Your task to perform on an android device: delete the emails in spam in the gmail app Image 0: 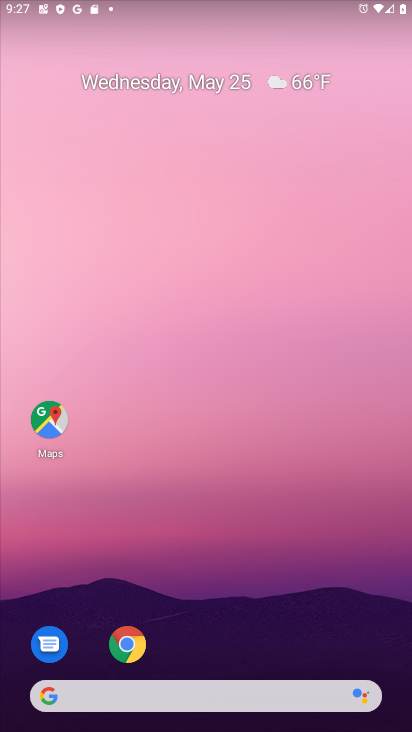
Step 0: press home button
Your task to perform on an android device: delete the emails in spam in the gmail app Image 1: 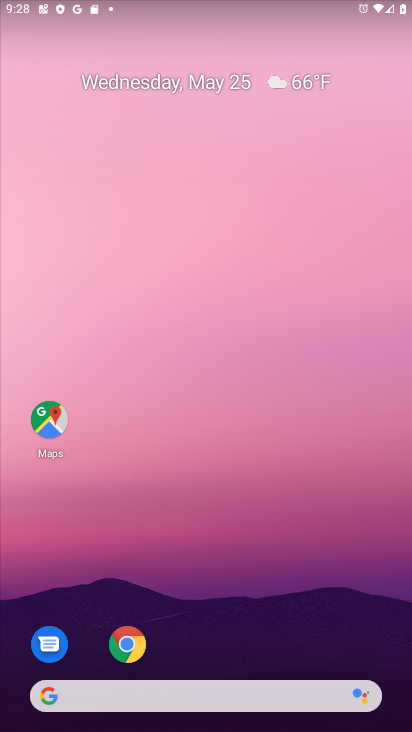
Step 1: drag from (226, 666) to (220, 178)
Your task to perform on an android device: delete the emails in spam in the gmail app Image 2: 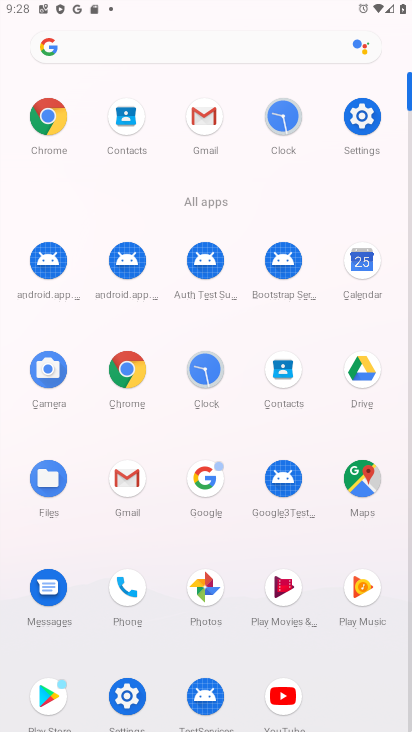
Step 2: click (125, 470)
Your task to perform on an android device: delete the emails in spam in the gmail app Image 3: 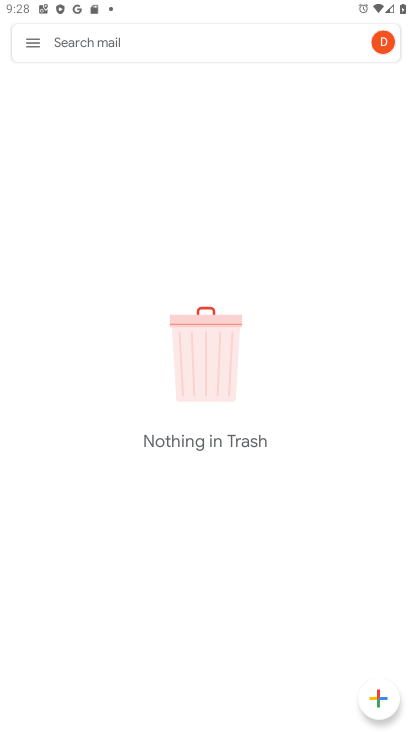
Step 3: click (31, 39)
Your task to perform on an android device: delete the emails in spam in the gmail app Image 4: 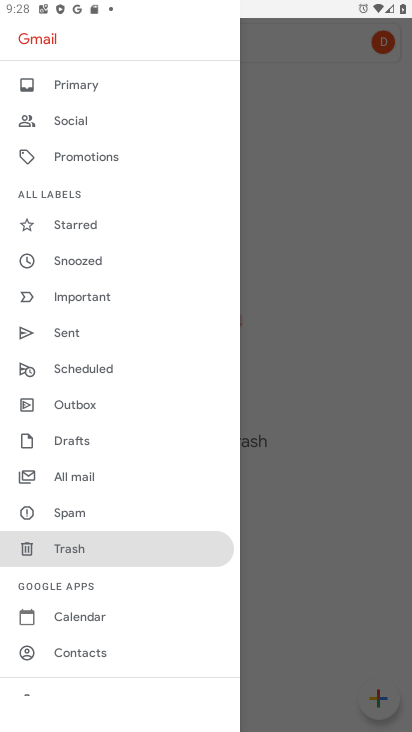
Step 4: click (100, 474)
Your task to perform on an android device: delete the emails in spam in the gmail app Image 5: 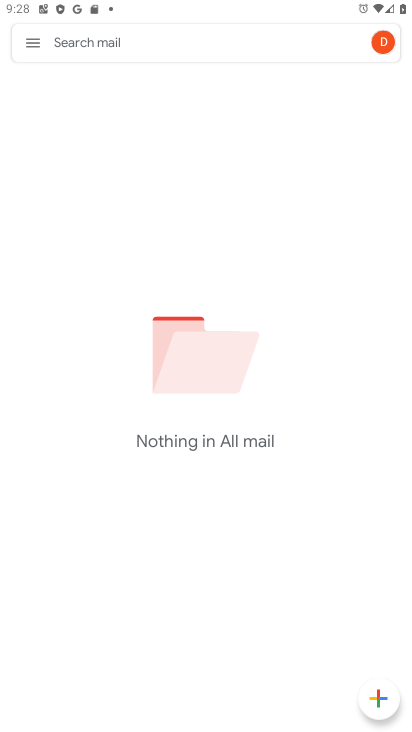
Step 5: task complete